Your task to perform on an android device: Go to Yahoo.com Image 0: 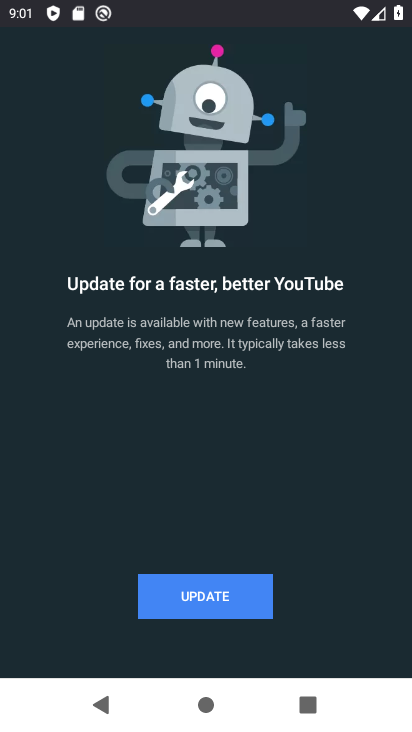
Step 0: press back button
Your task to perform on an android device: Go to Yahoo.com Image 1: 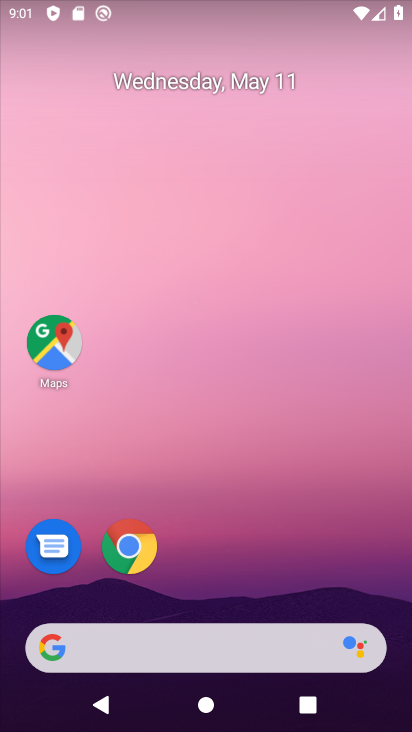
Step 1: click (134, 547)
Your task to perform on an android device: Go to Yahoo.com Image 2: 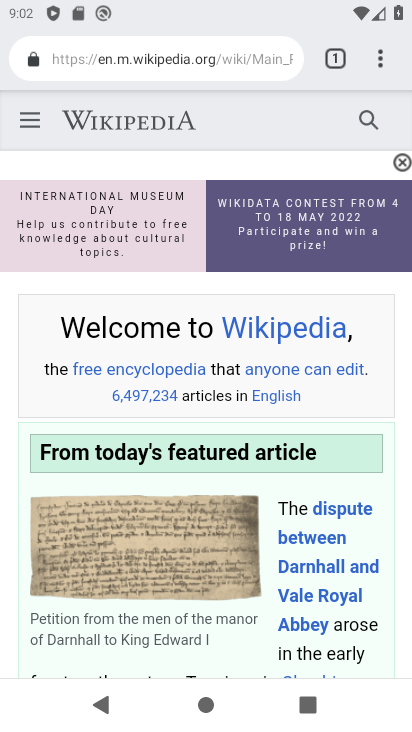
Step 2: click (171, 57)
Your task to perform on an android device: Go to Yahoo.com Image 3: 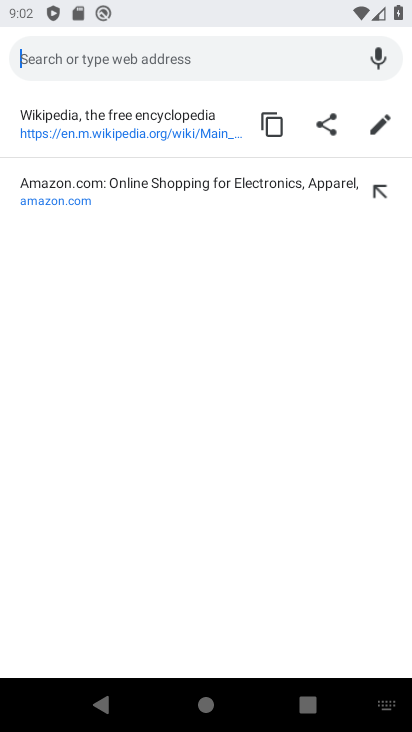
Step 3: type "yahoo.com"
Your task to perform on an android device: Go to Yahoo.com Image 4: 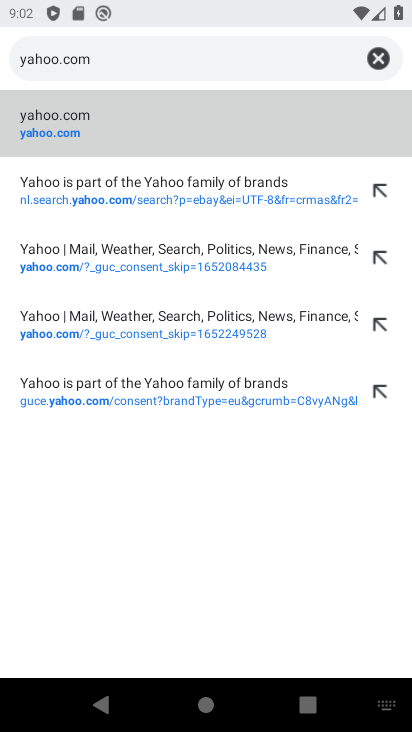
Step 4: click (45, 132)
Your task to perform on an android device: Go to Yahoo.com Image 5: 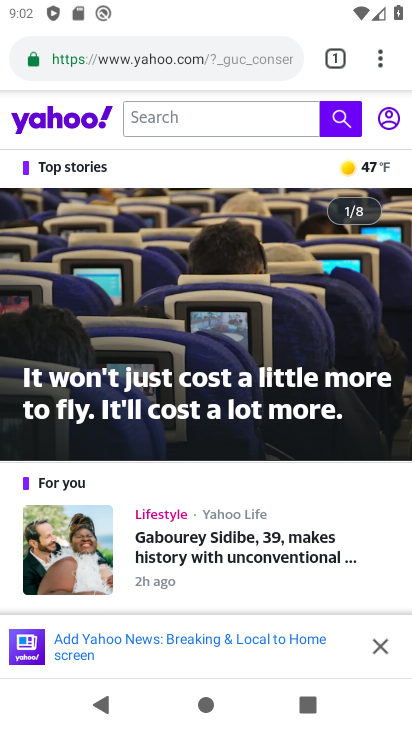
Step 5: task complete